Your task to perform on an android device: Open notification settings Image 0: 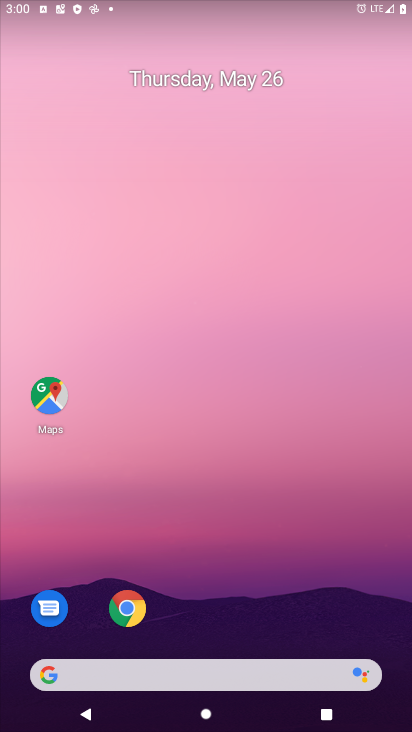
Step 0: drag from (349, 606) to (306, 92)
Your task to perform on an android device: Open notification settings Image 1: 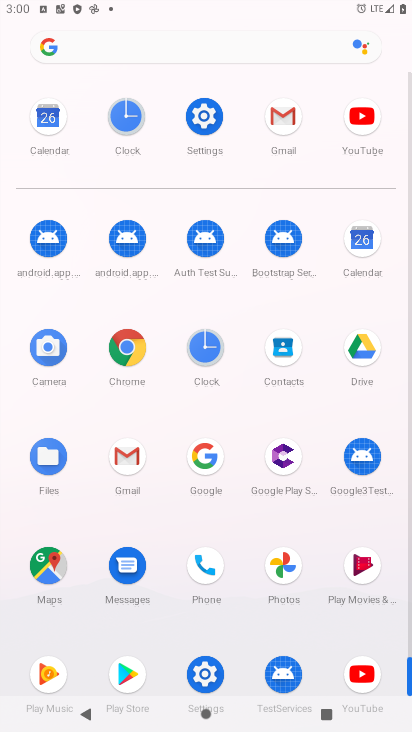
Step 1: click (200, 672)
Your task to perform on an android device: Open notification settings Image 2: 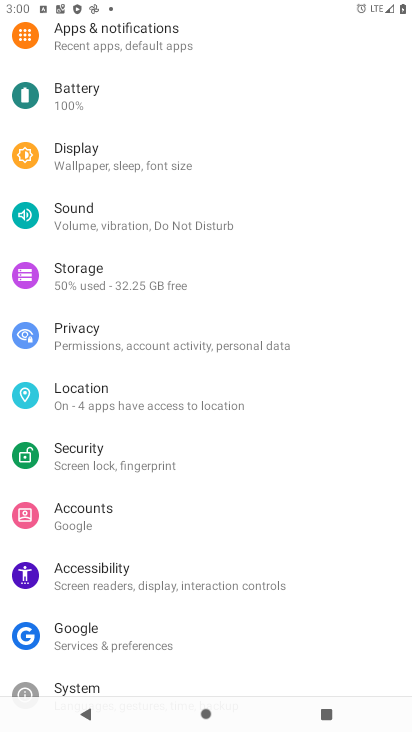
Step 2: drag from (212, 197) to (249, 478)
Your task to perform on an android device: Open notification settings Image 3: 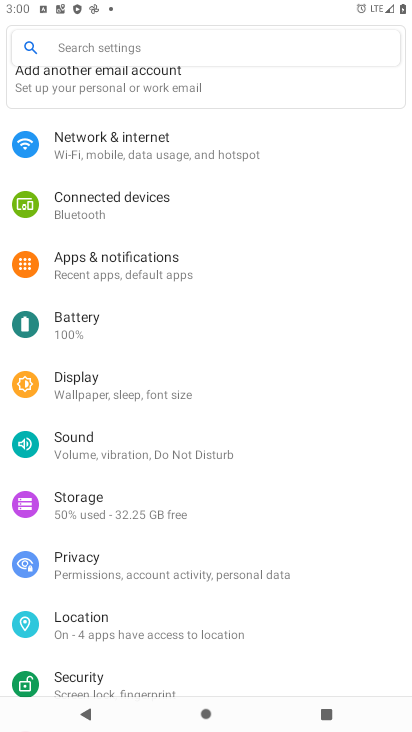
Step 3: click (102, 260)
Your task to perform on an android device: Open notification settings Image 4: 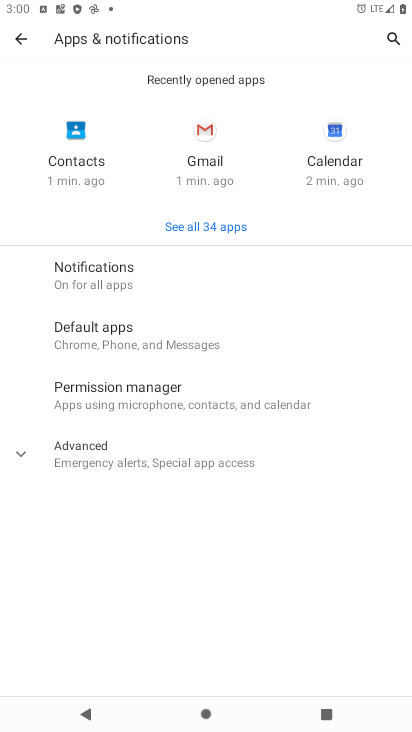
Step 4: click (102, 260)
Your task to perform on an android device: Open notification settings Image 5: 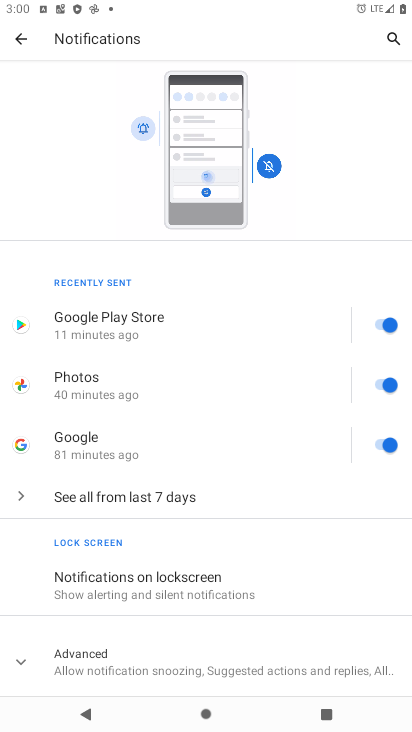
Step 5: drag from (265, 564) to (270, 155)
Your task to perform on an android device: Open notification settings Image 6: 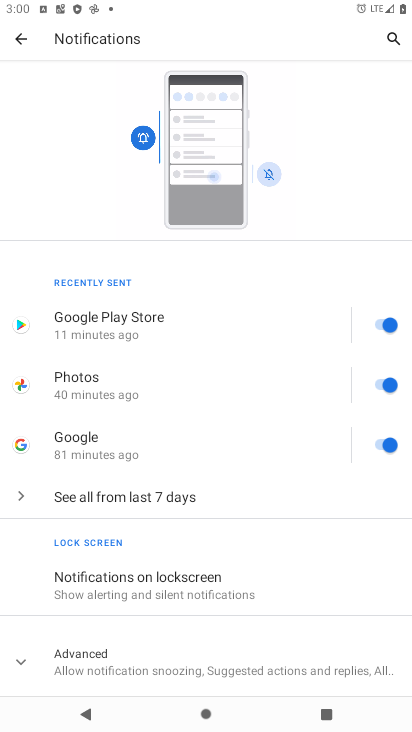
Step 6: click (16, 655)
Your task to perform on an android device: Open notification settings Image 7: 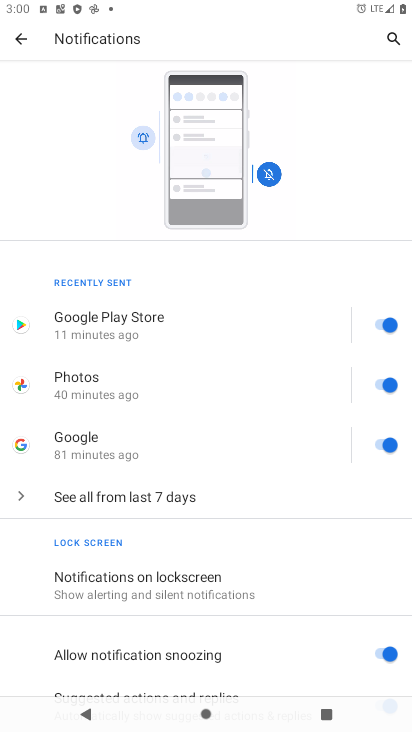
Step 7: task complete